Your task to perform on an android device: Search for a 4k TV on Best Buy Image 0: 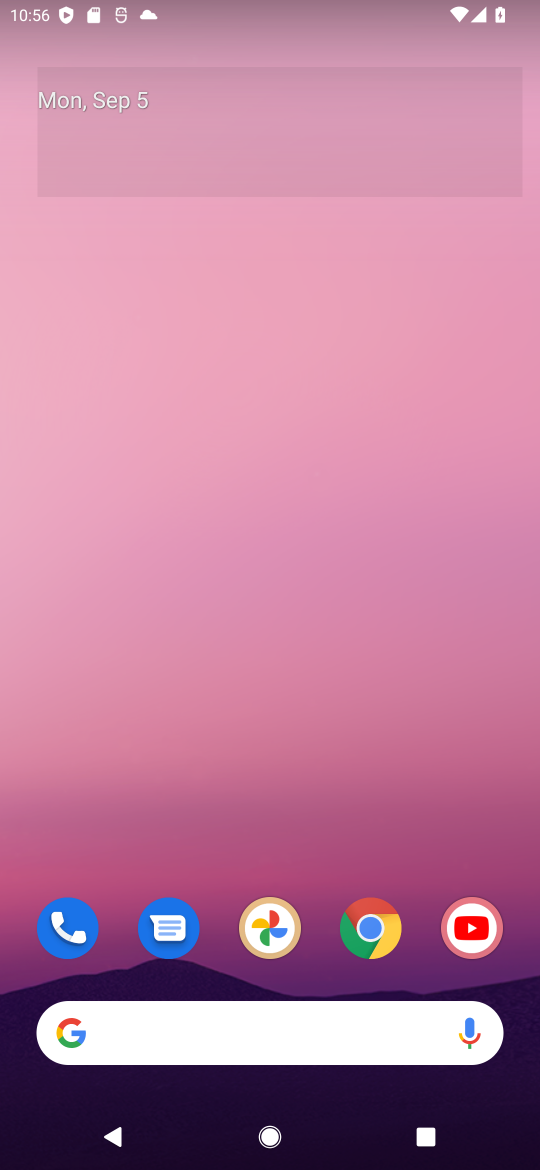
Step 0: drag from (292, 694) to (125, 2)
Your task to perform on an android device: Search for a 4k TV on Best Buy Image 1: 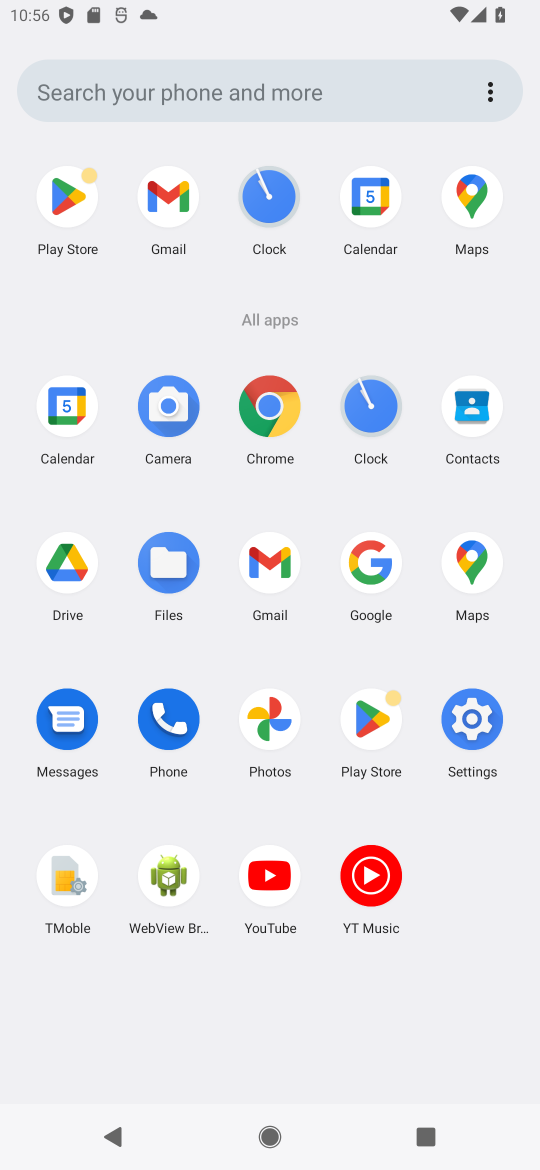
Step 1: click (265, 407)
Your task to perform on an android device: Search for a 4k TV on Best Buy Image 2: 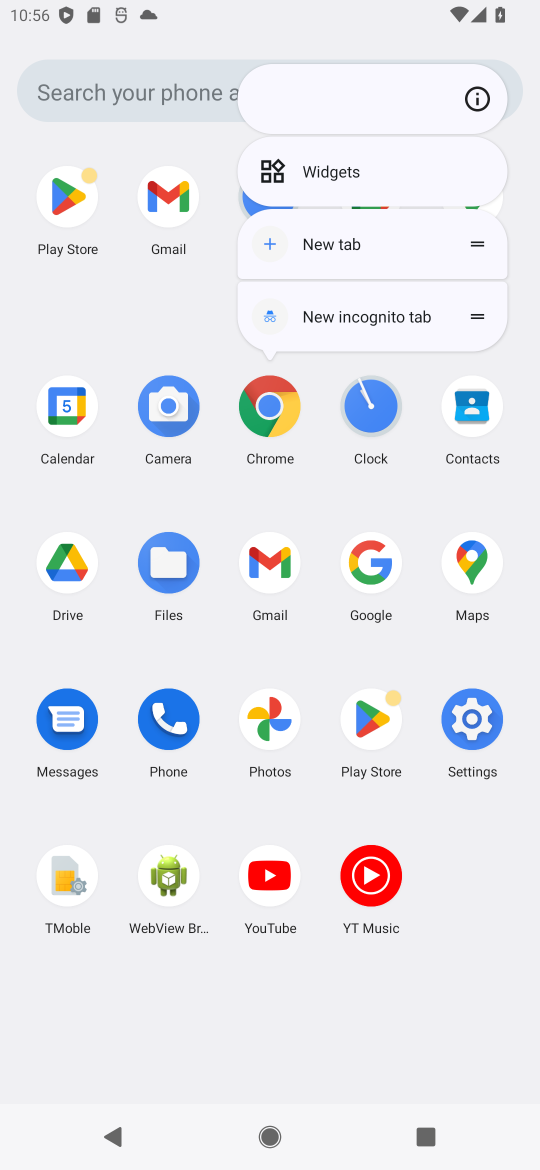
Step 2: click (264, 403)
Your task to perform on an android device: Search for a 4k TV on Best Buy Image 3: 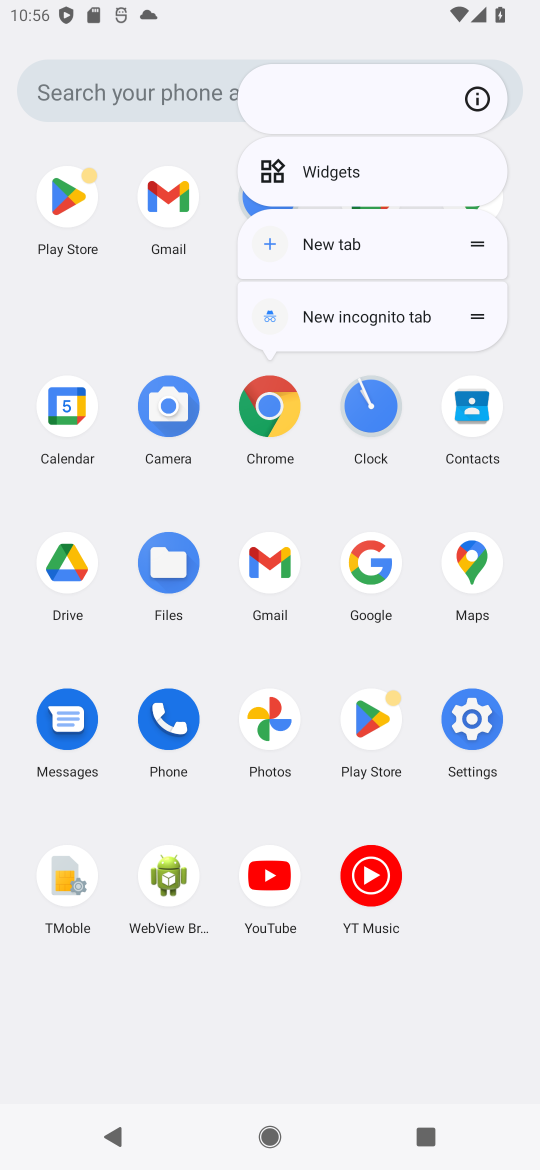
Step 3: click (279, 405)
Your task to perform on an android device: Search for a 4k TV on Best Buy Image 4: 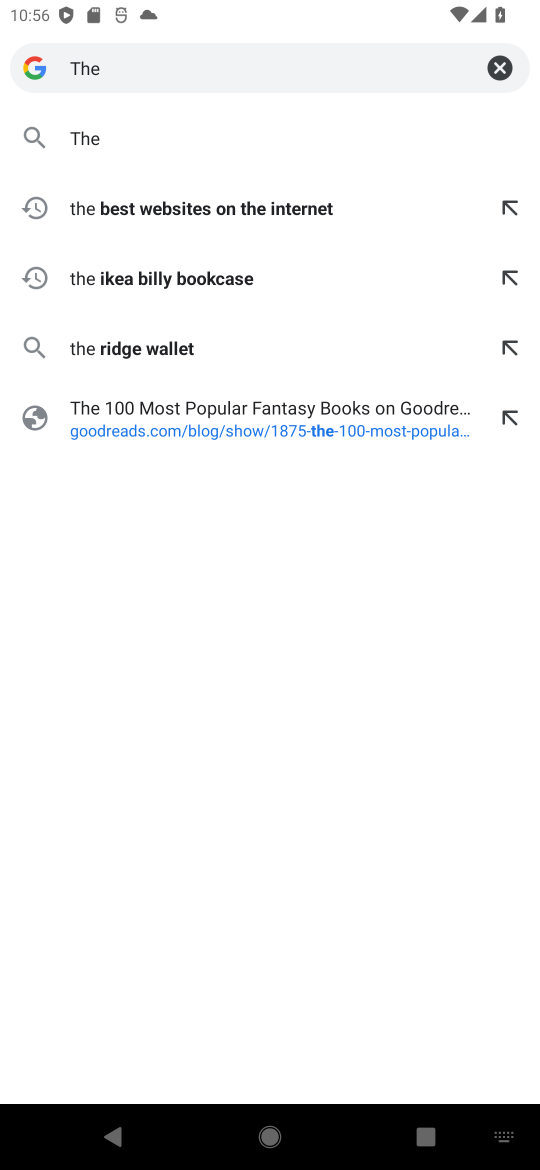
Step 4: click (509, 74)
Your task to perform on an android device: Search for a 4k TV on Best Buy Image 5: 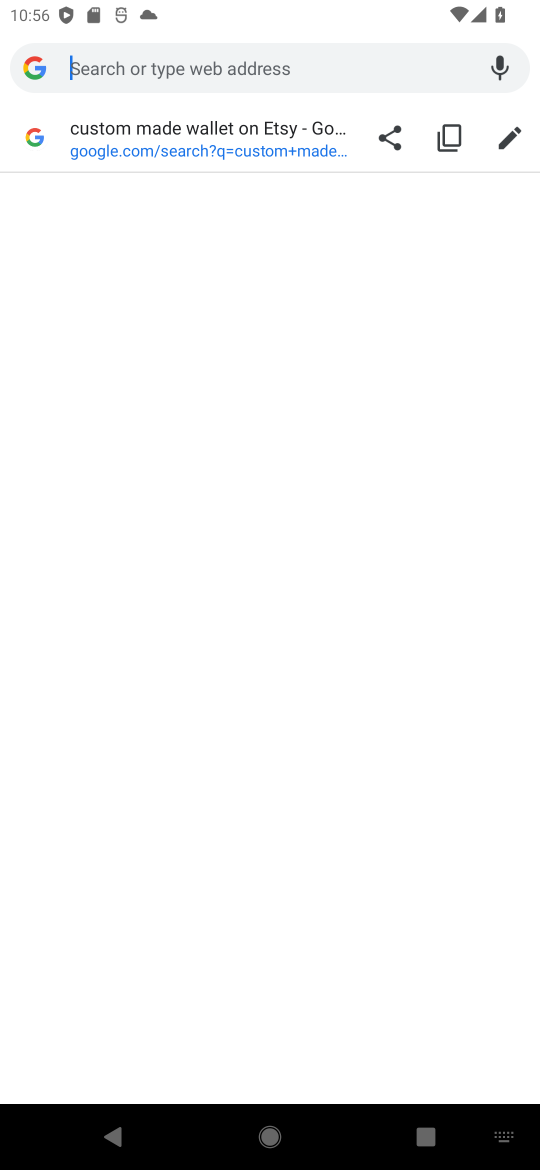
Step 5: click (329, 67)
Your task to perform on an android device: Search for a 4k TV on Best Buy Image 6: 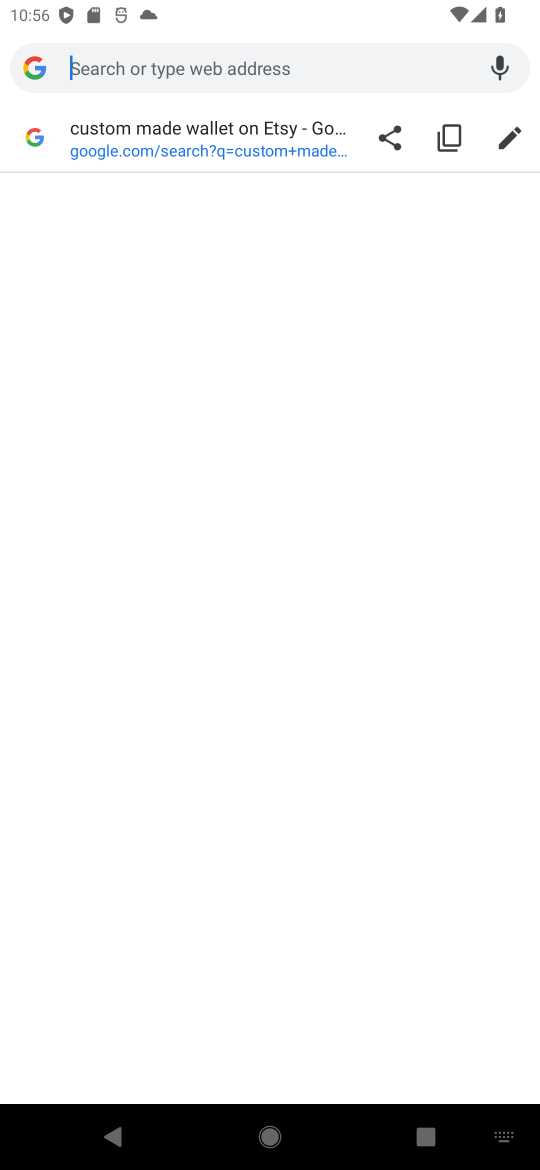
Step 6: type "4k TV on Best buy"
Your task to perform on an android device: Search for a 4k TV on Best Buy Image 7: 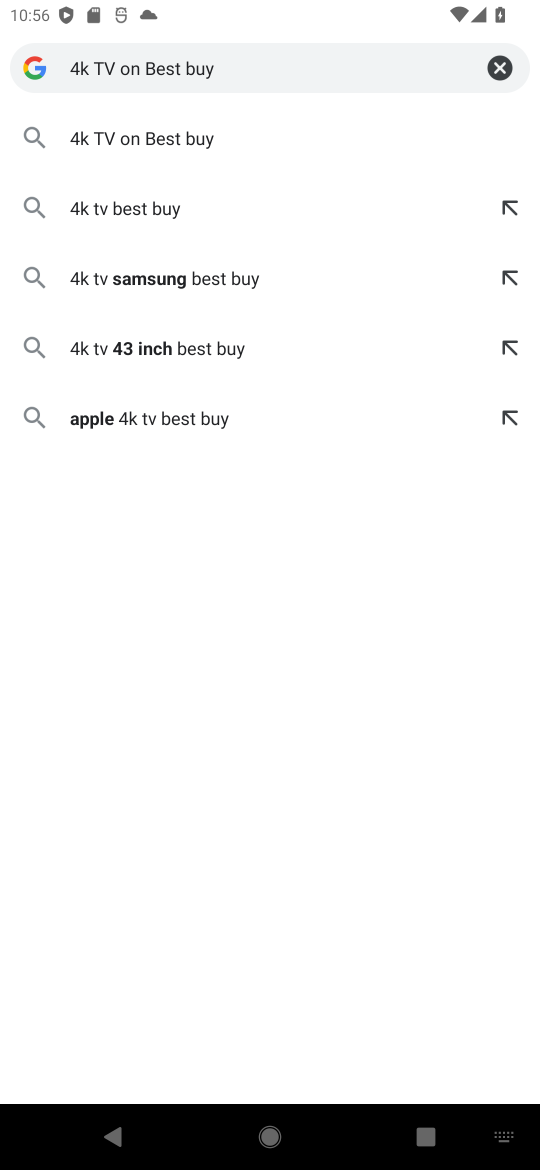
Step 7: press enter
Your task to perform on an android device: Search for a 4k TV on Best Buy Image 8: 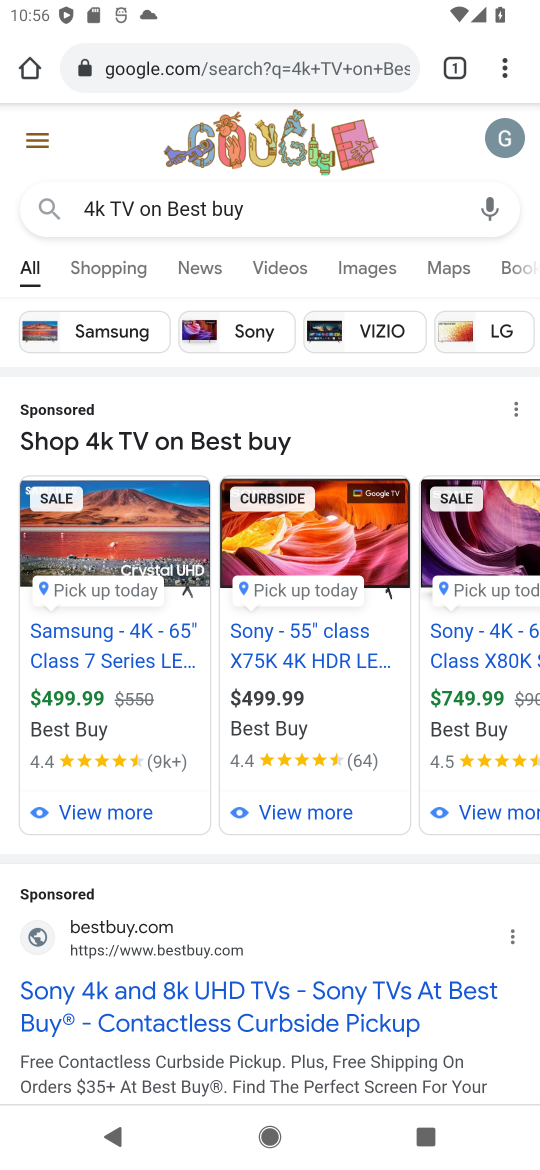
Step 8: drag from (252, 889) to (273, 429)
Your task to perform on an android device: Search for a 4k TV on Best Buy Image 9: 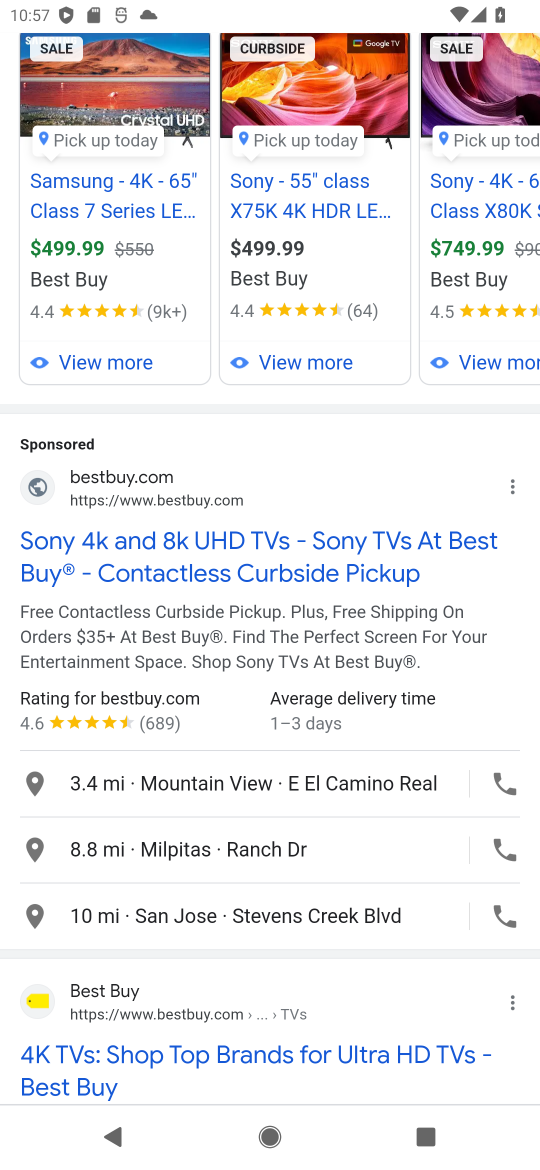
Step 9: click (260, 560)
Your task to perform on an android device: Search for a 4k TV on Best Buy Image 10: 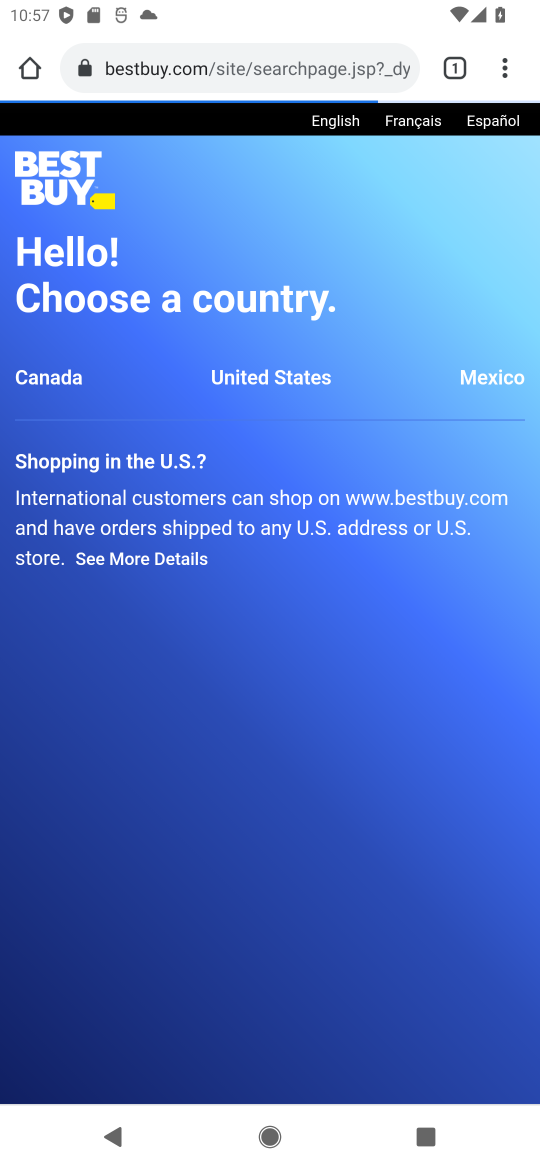
Step 10: drag from (286, 1042) to (293, 822)
Your task to perform on an android device: Search for a 4k TV on Best Buy Image 11: 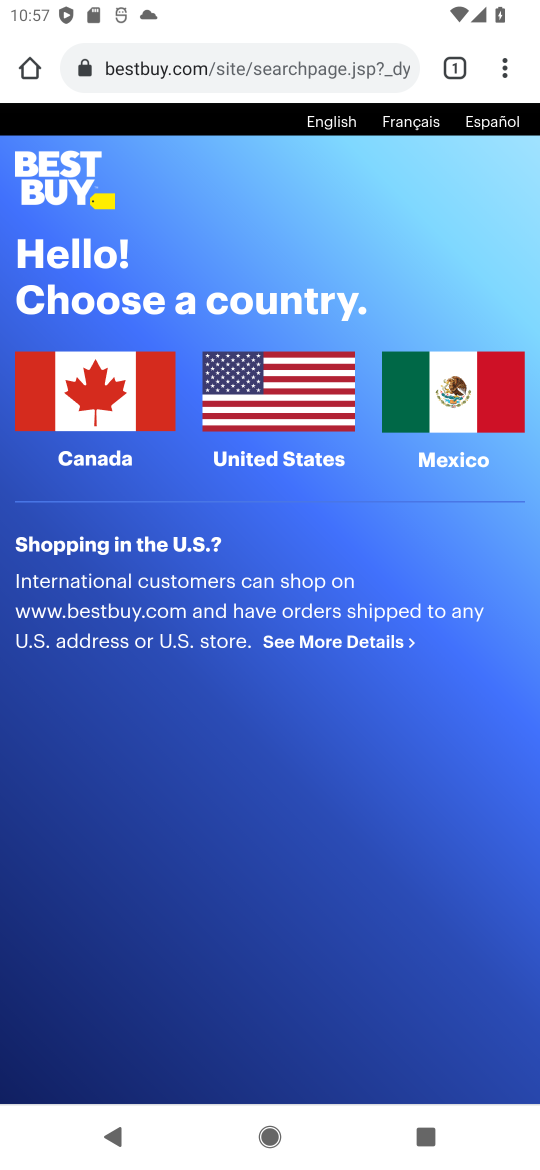
Step 11: click (293, 391)
Your task to perform on an android device: Search for a 4k TV on Best Buy Image 12: 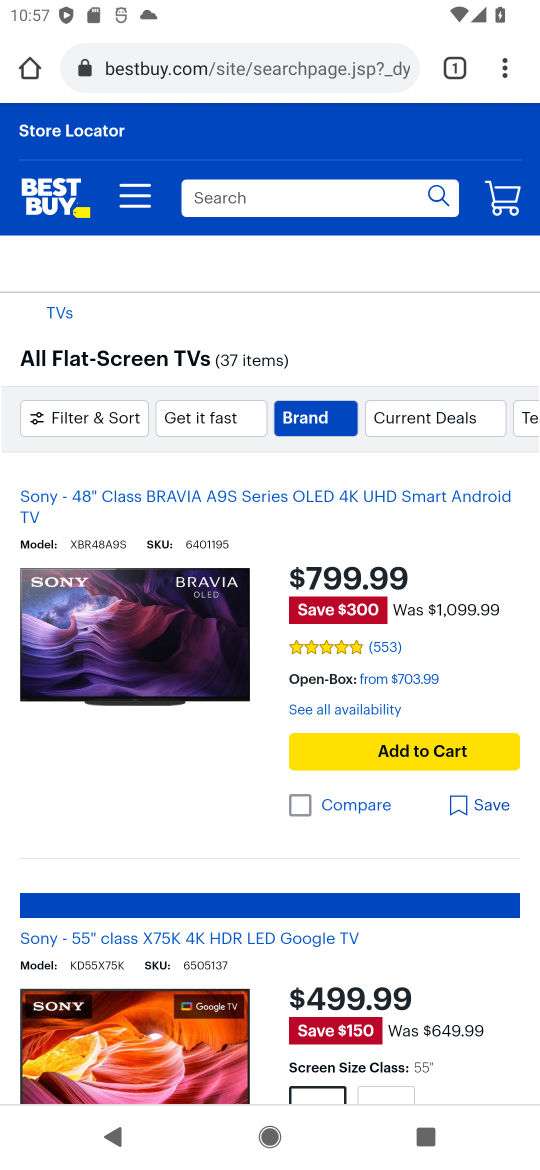
Step 12: task complete